Your task to perform on an android device: Go to Amazon Image 0: 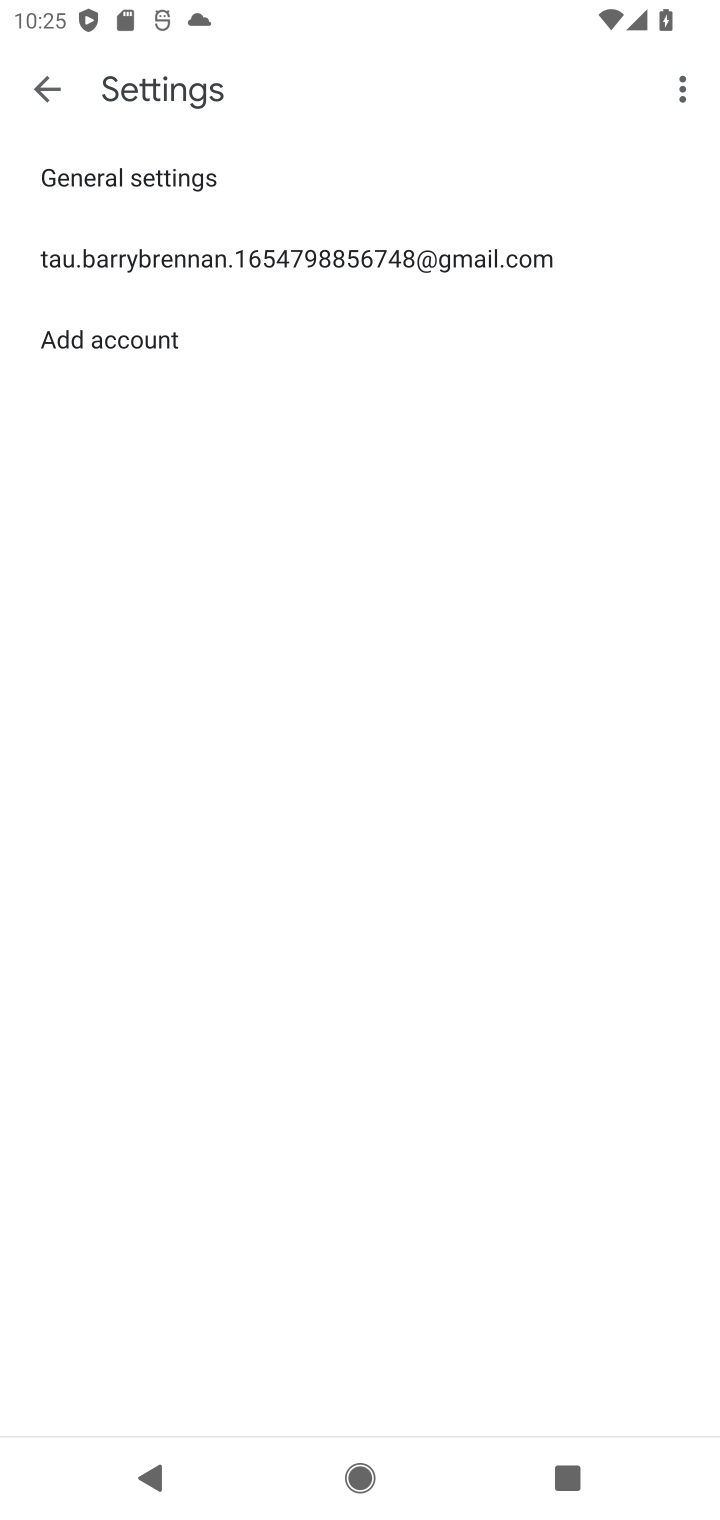
Step 0: press home button
Your task to perform on an android device: Go to Amazon Image 1: 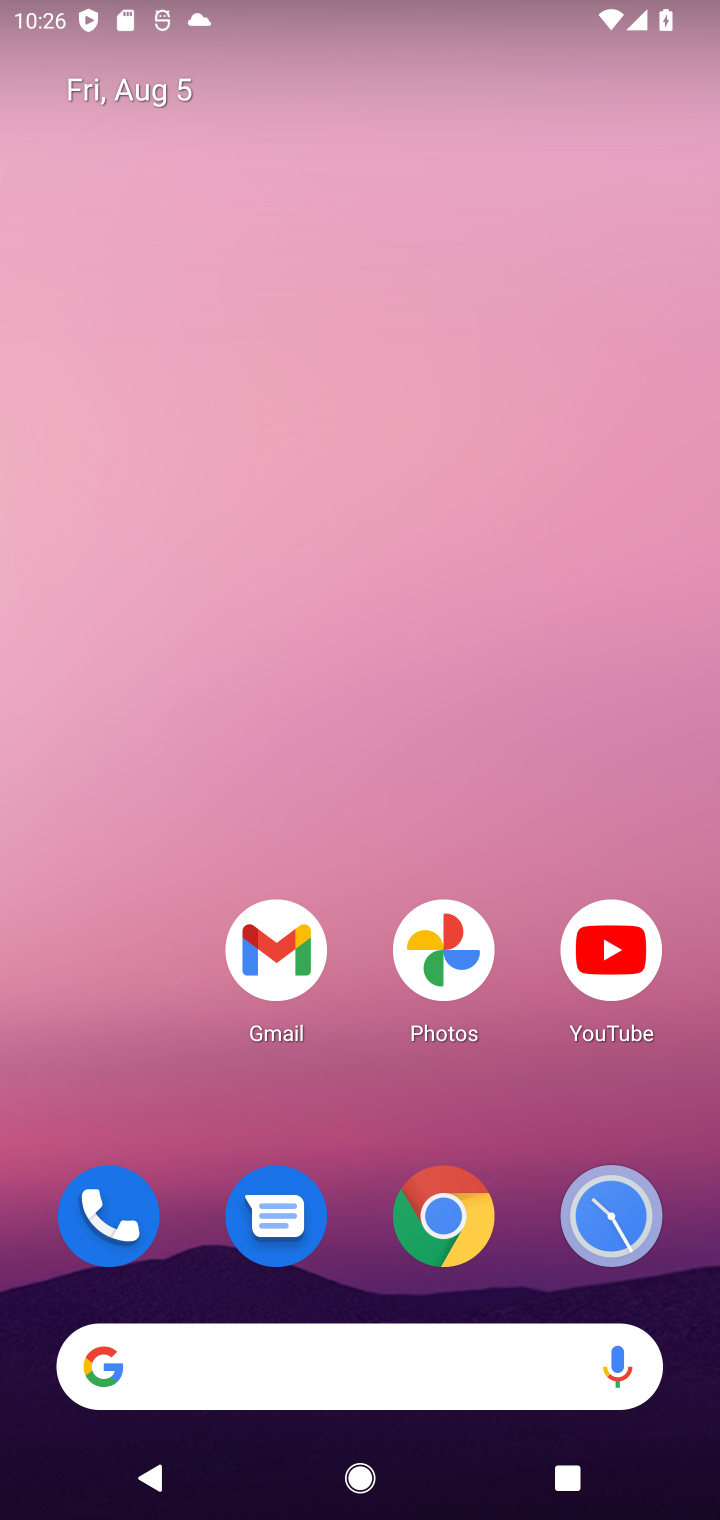
Step 1: drag from (357, 1353) to (398, 98)
Your task to perform on an android device: Go to Amazon Image 2: 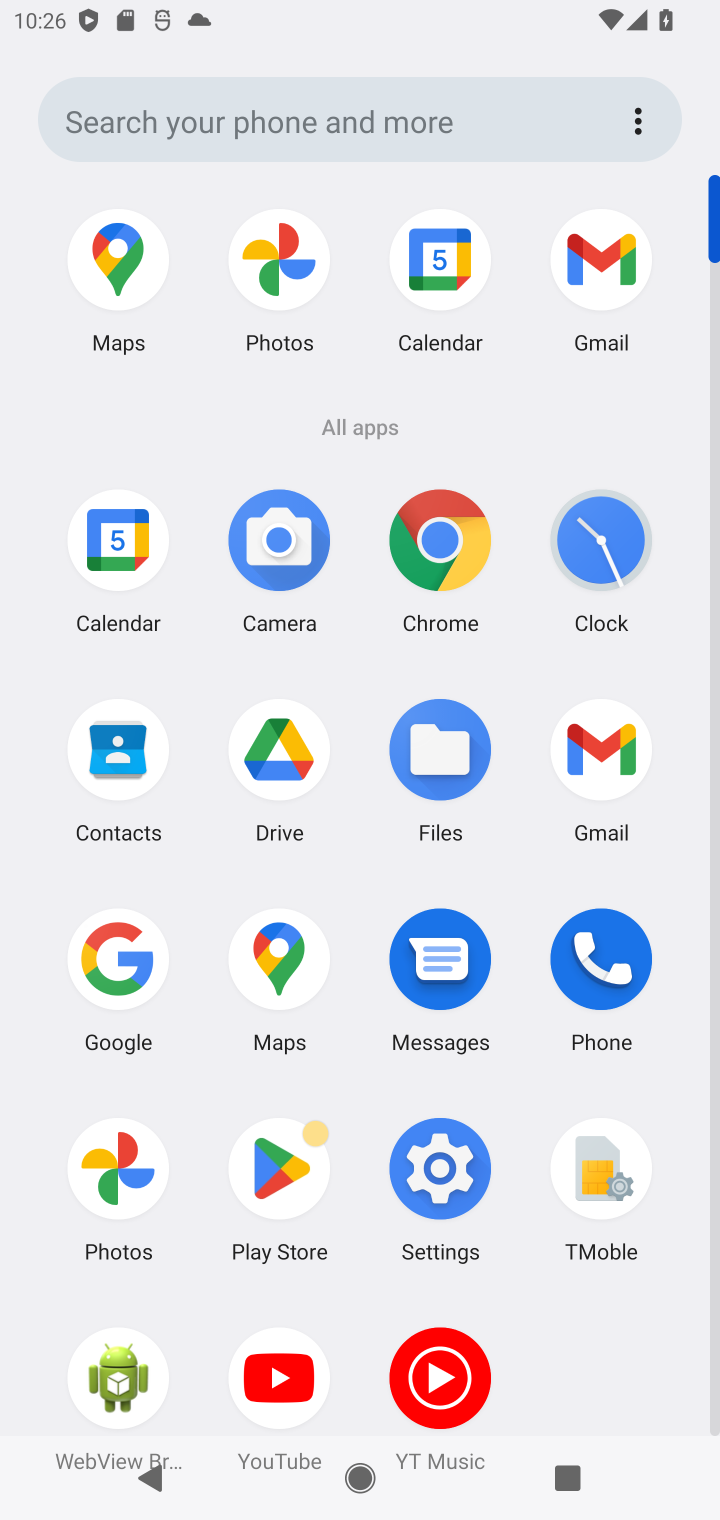
Step 2: click (453, 554)
Your task to perform on an android device: Go to Amazon Image 3: 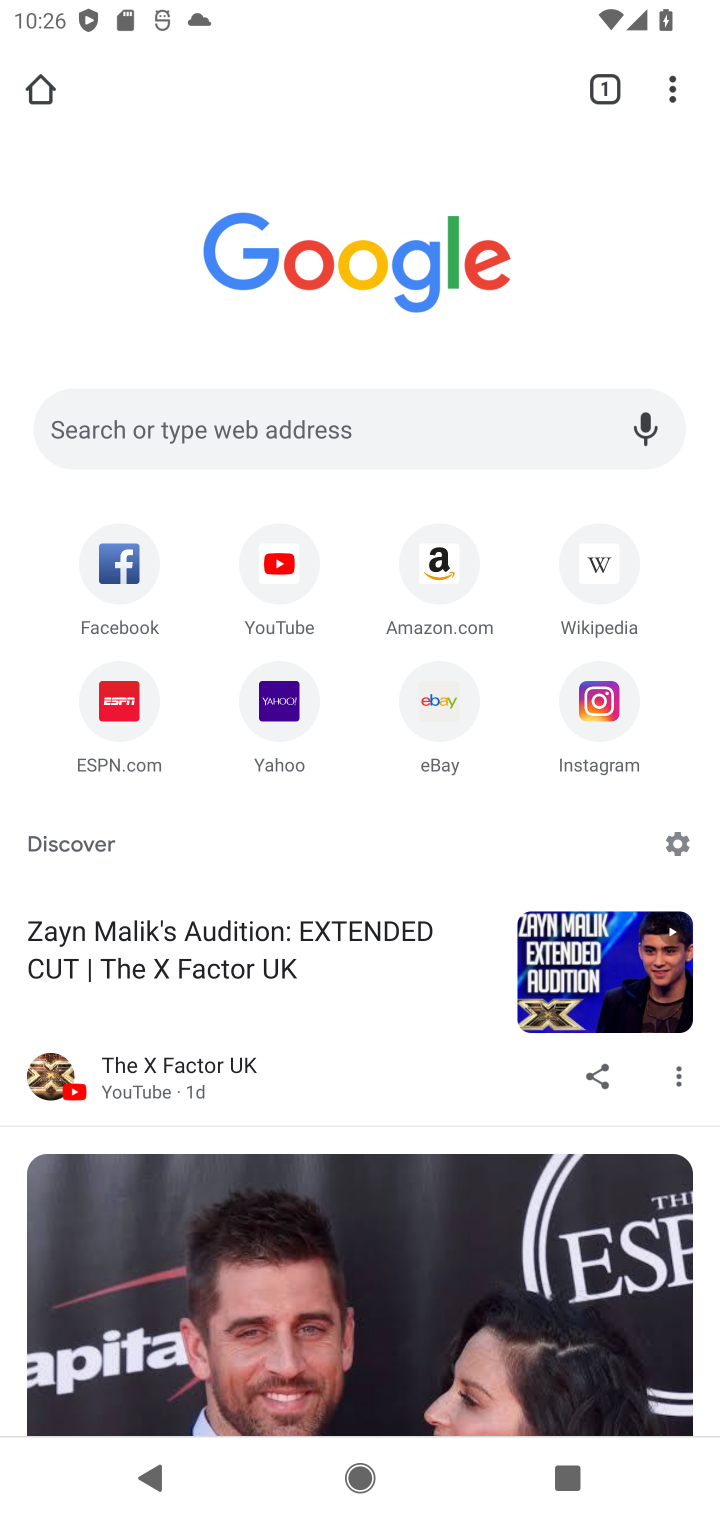
Step 3: click (453, 554)
Your task to perform on an android device: Go to Amazon Image 4: 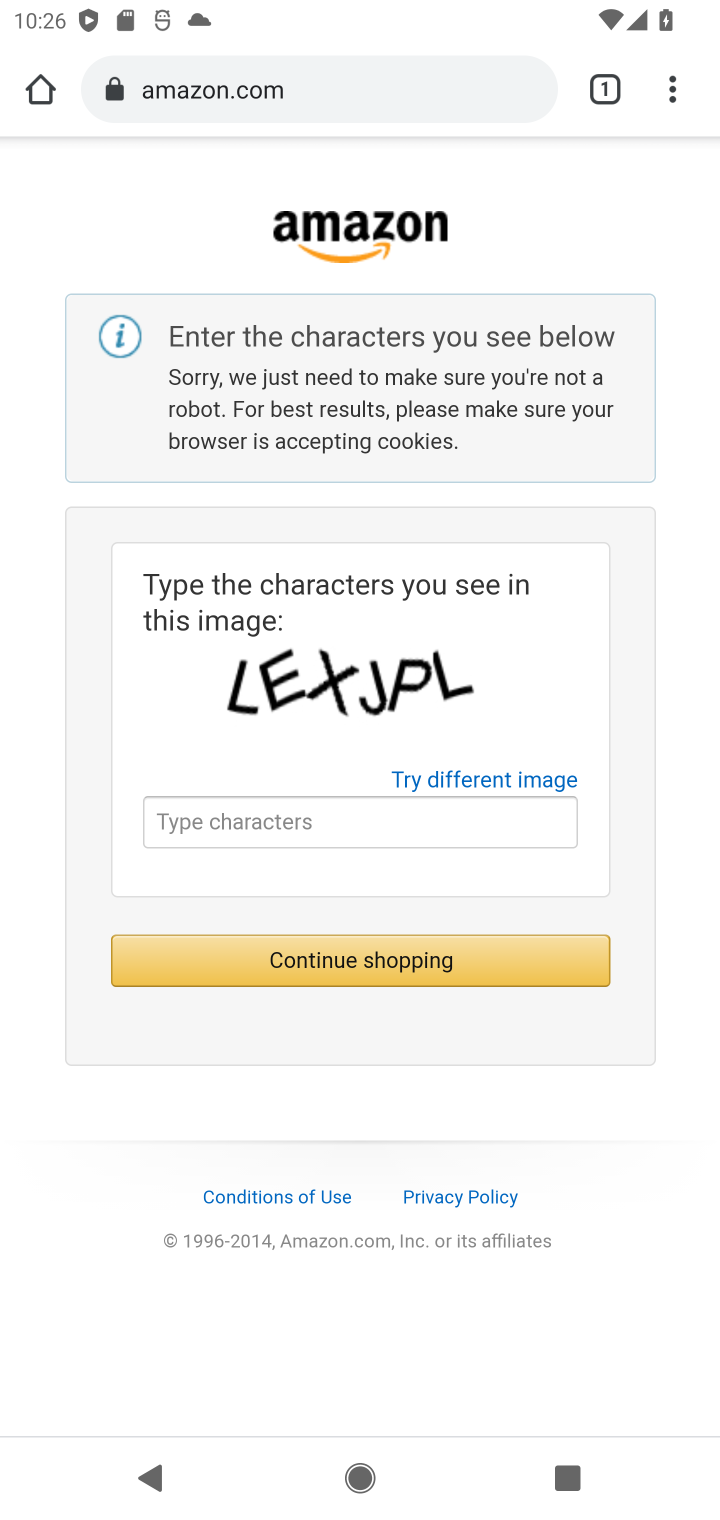
Step 4: task complete